Your task to perform on an android device: check battery use Image 0: 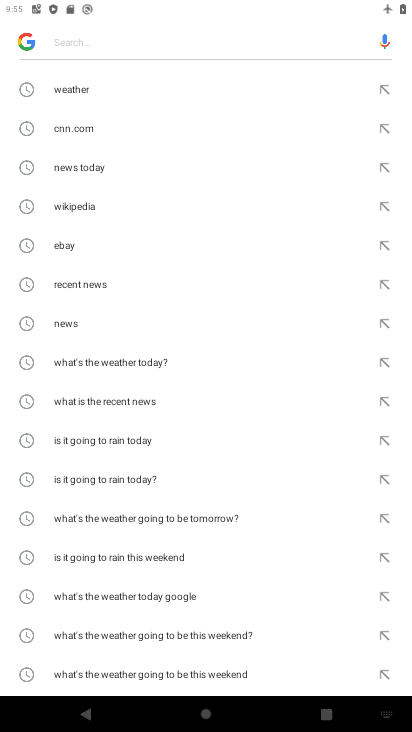
Step 0: press home button
Your task to perform on an android device: check battery use Image 1: 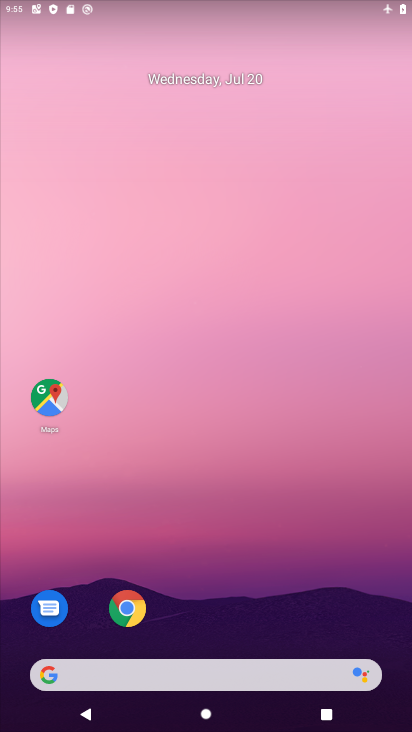
Step 1: drag from (266, 712) to (215, 57)
Your task to perform on an android device: check battery use Image 2: 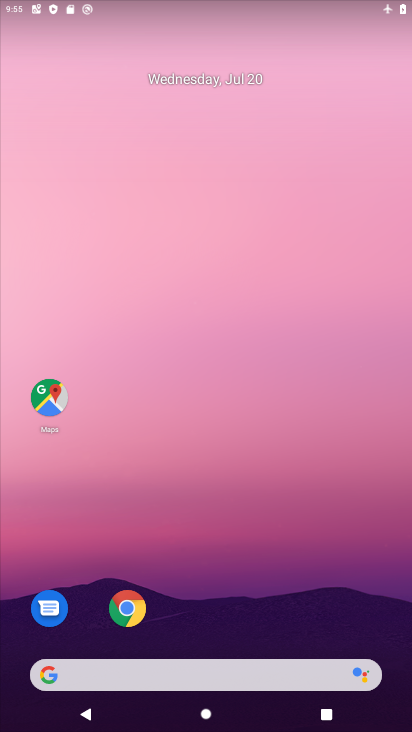
Step 2: drag from (259, 720) to (334, 71)
Your task to perform on an android device: check battery use Image 3: 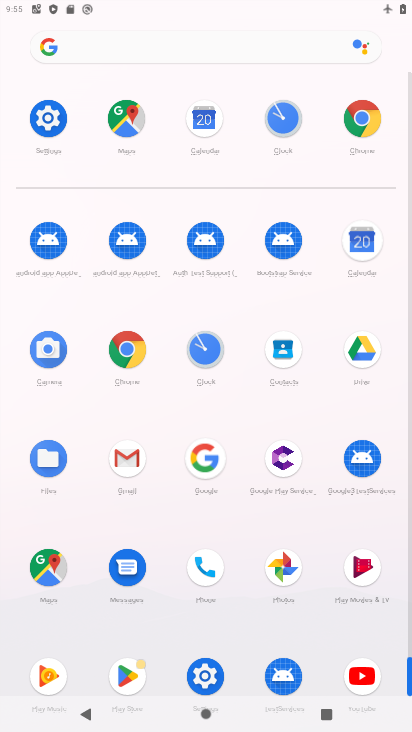
Step 3: click (53, 113)
Your task to perform on an android device: check battery use Image 4: 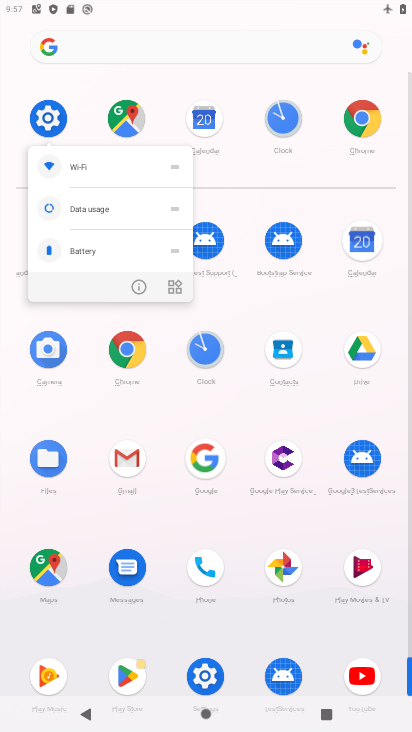
Step 4: click (45, 108)
Your task to perform on an android device: check battery use Image 5: 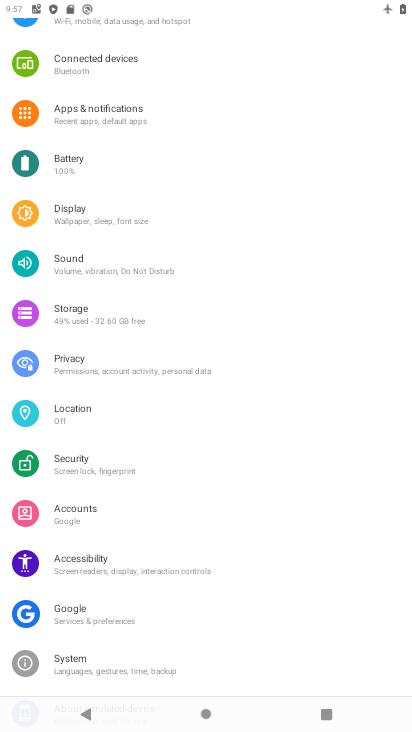
Step 5: click (98, 175)
Your task to perform on an android device: check battery use Image 6: 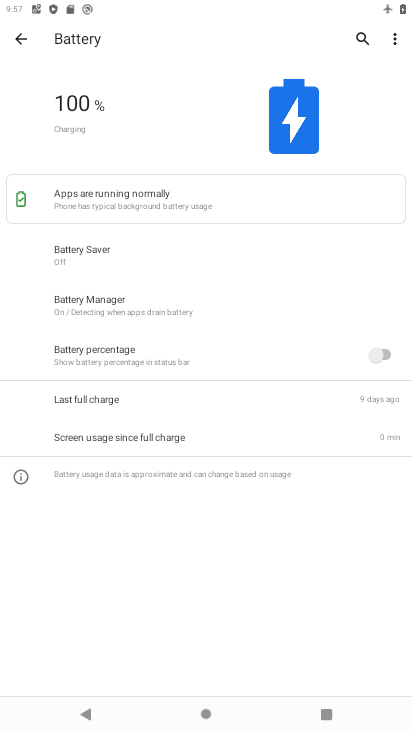
Step 6: click (395, 43)
Your task to perform on an android device: check battery use Image 7: 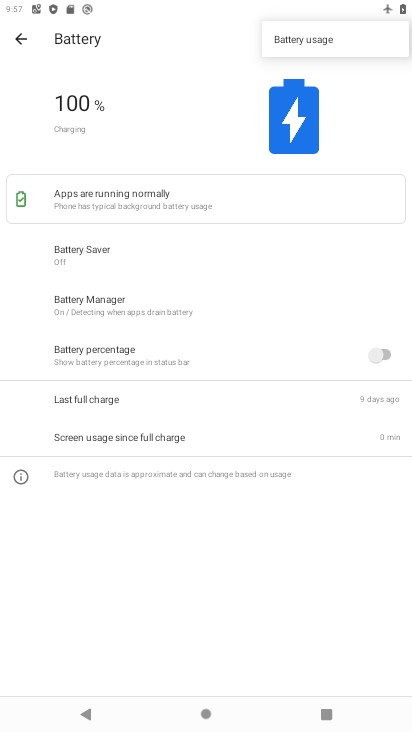
Step 7: click (337, 39)
Your task to perform on an android device: check battery use Image 8: 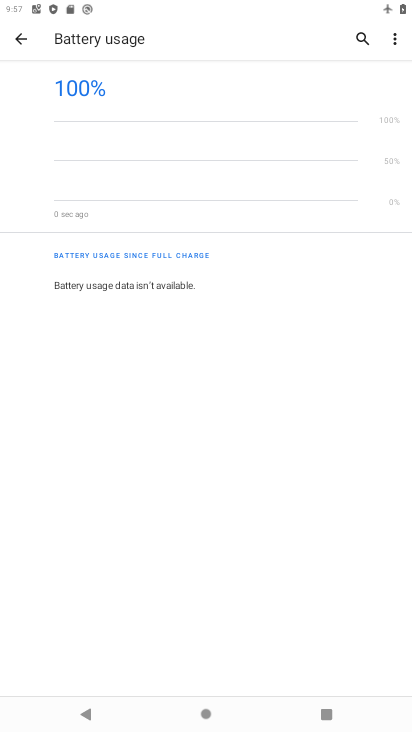
Step 8: task complete